Your task to perform on an android device: check storage Image 0: 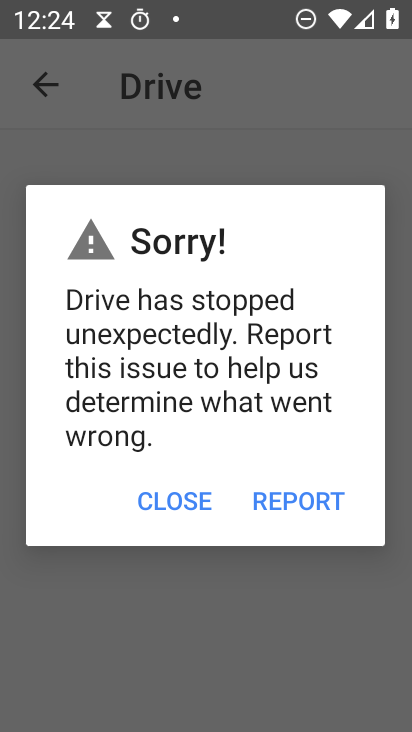
Step 0: click (185, 634)
Your task to perform on an android device: check storage Image 1: 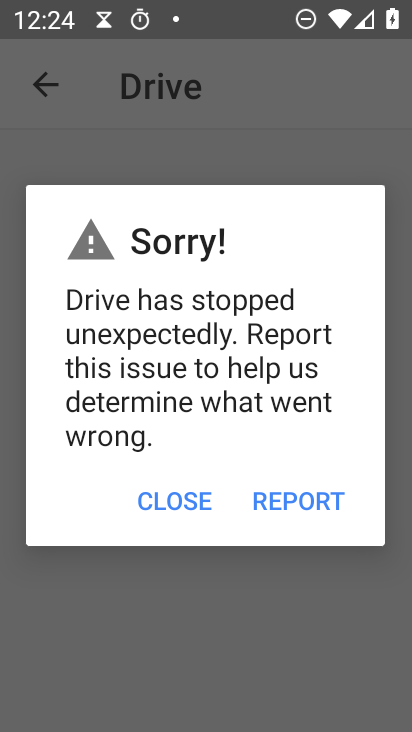
Step 1: press home button
Your task to perform on an android device: check storage Image 2: 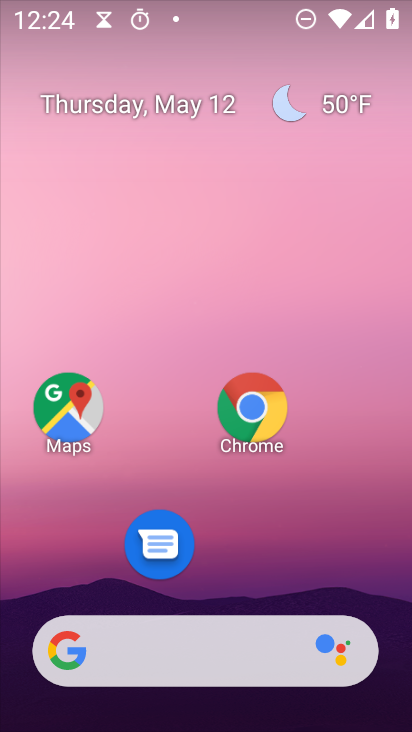
Step 2: drag from (257, 540) to (248, 242)
Your task to perform on an android device: check storage Image 3: 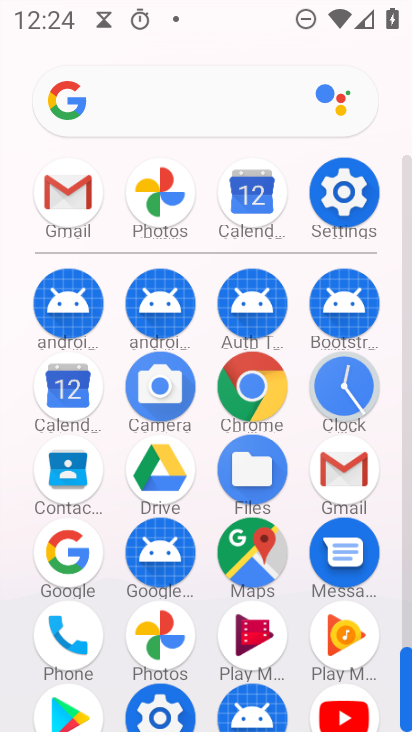
Step 3: click (368, 174)
Your task to perform on an android device: check storage Image 4: 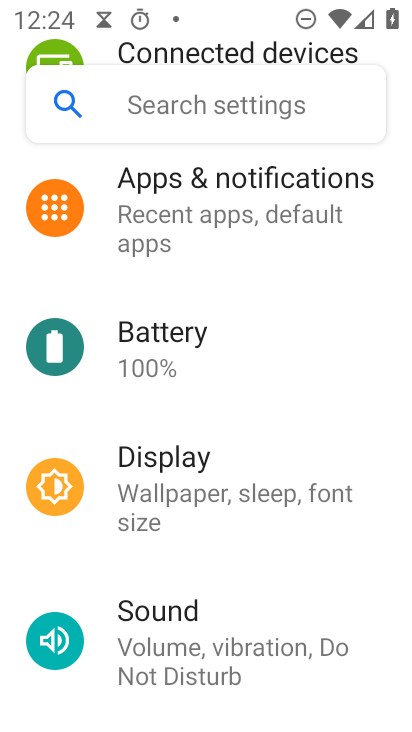
Step 4: drag from (185, 648) to (239, 156)
Your task to perform on an android device: check storage Image 5: 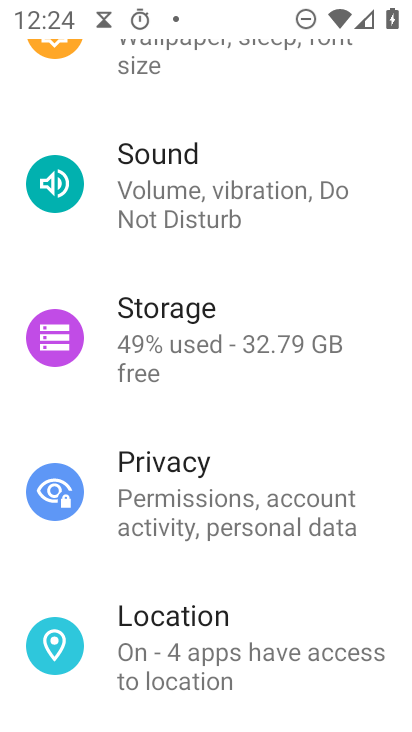
Step 5: click (176, 342)
Your task to perform on an android device: check storage Image 6: 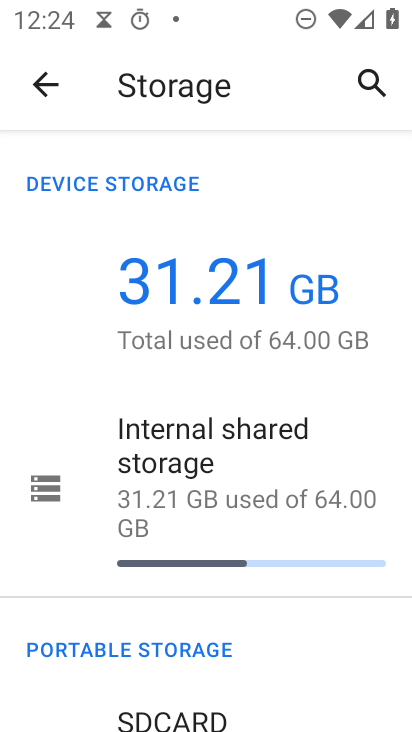
Step 6: task complete